Your task to perform on an android device: Search for vegetarian restaurants on Maps Image 0: 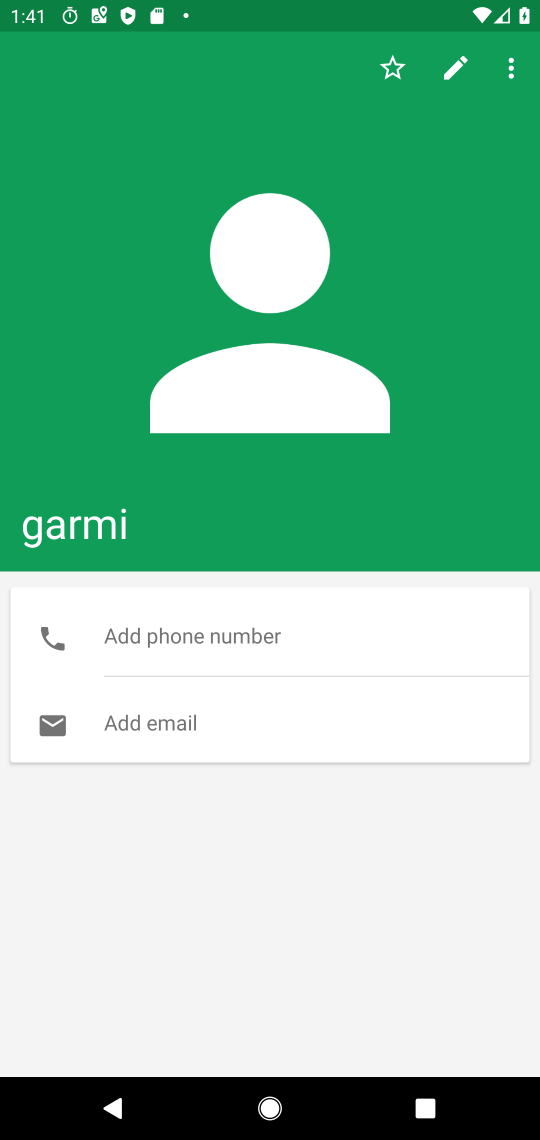
Step 0: press home button
Your task to perform on an android device: Search for vegetarian restaurants on Maps Image 1: 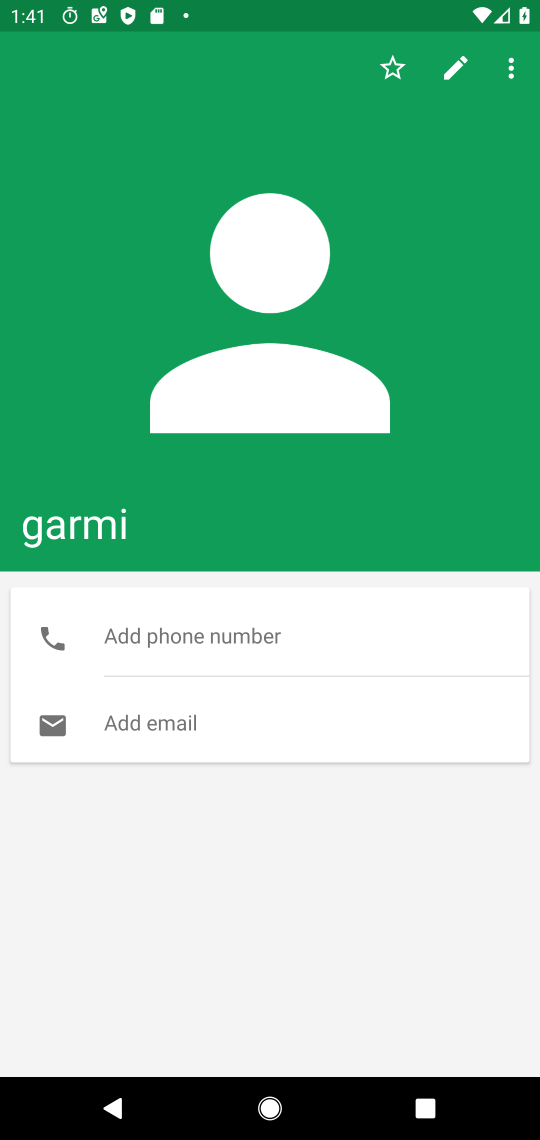
Step 1: press home button
Your task to perform on an android device: Search for vegetarian restaurants on Maps Image 2: 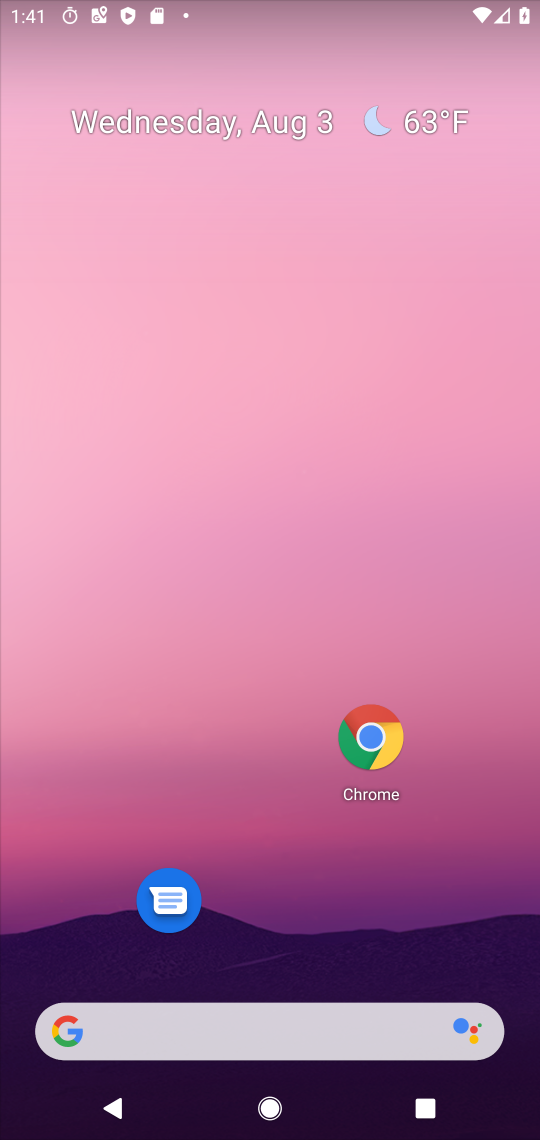
Step 2: press home button
Your task to perform on an android device: Search for vegetarian restaurants on Maps Image 3: 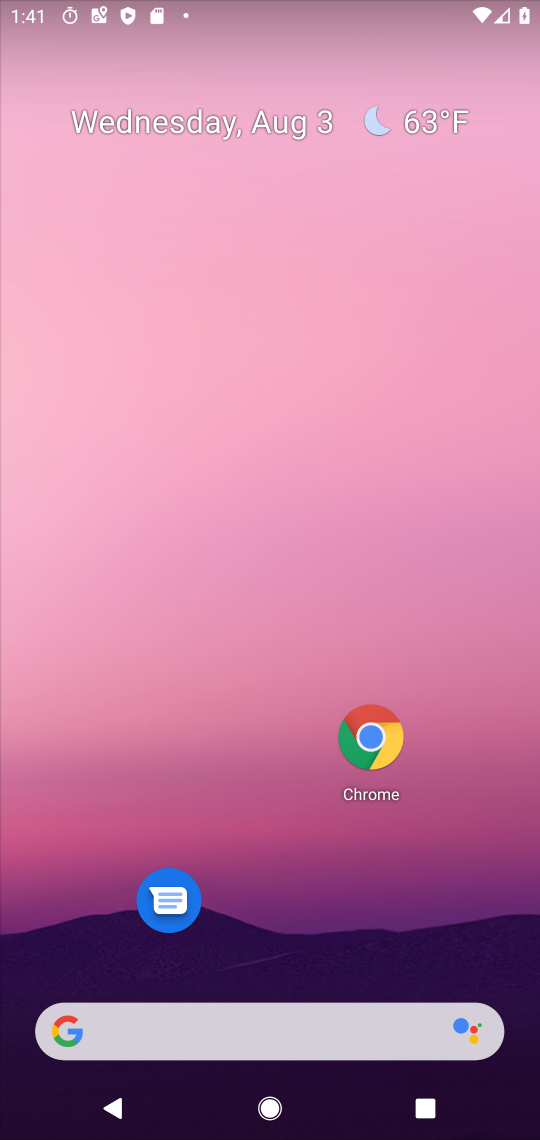
Step 3: drag from (272, 936) to (249, 123)
Your task to perform on an android device: Search for vegetarian restaurants on Maps Image 4: 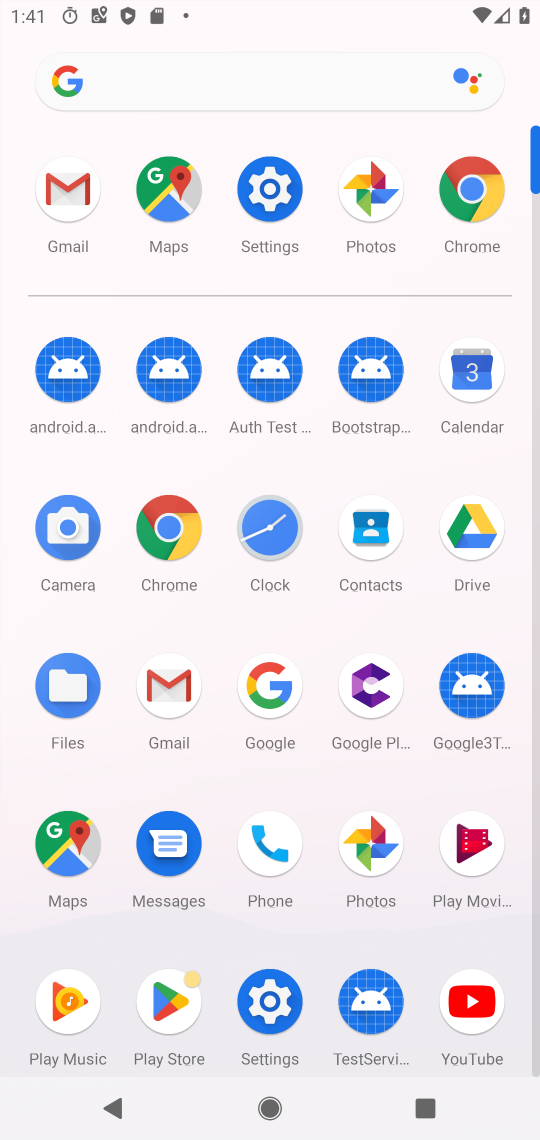
Step 4: click (75, 842)
Your task to perform on an android device: Search for vegetarian restaurants on Maps Image 5: 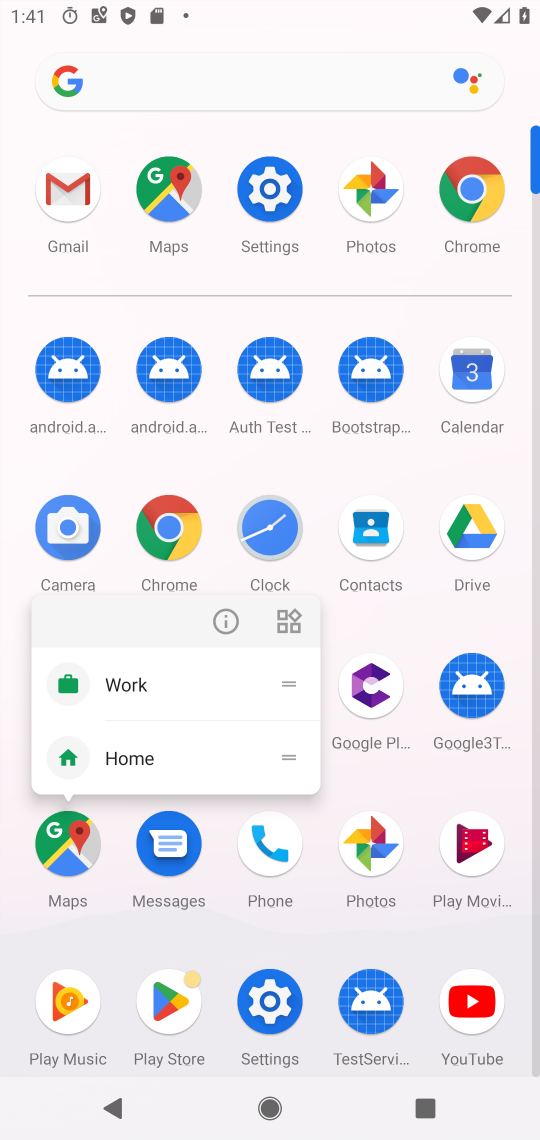
Step 5: click (68, 842)
Your task to perform on an android device: Search for vegetarian restaurants on Maps Image 6: 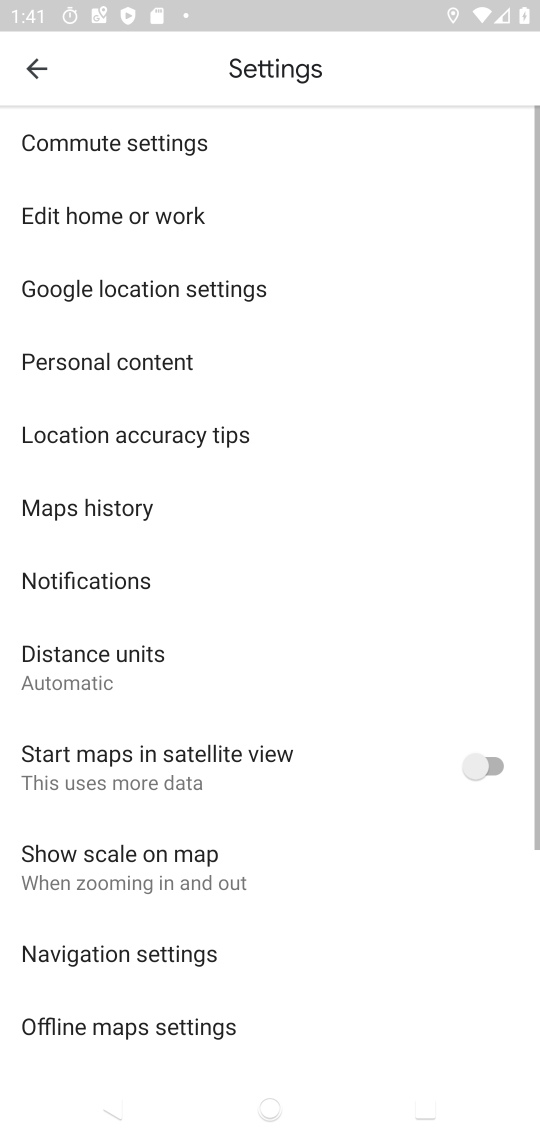
Step 6: click (37, 54)
Your task to perform on an android device: Search for vegetarian restaurants on Maps Image 7: 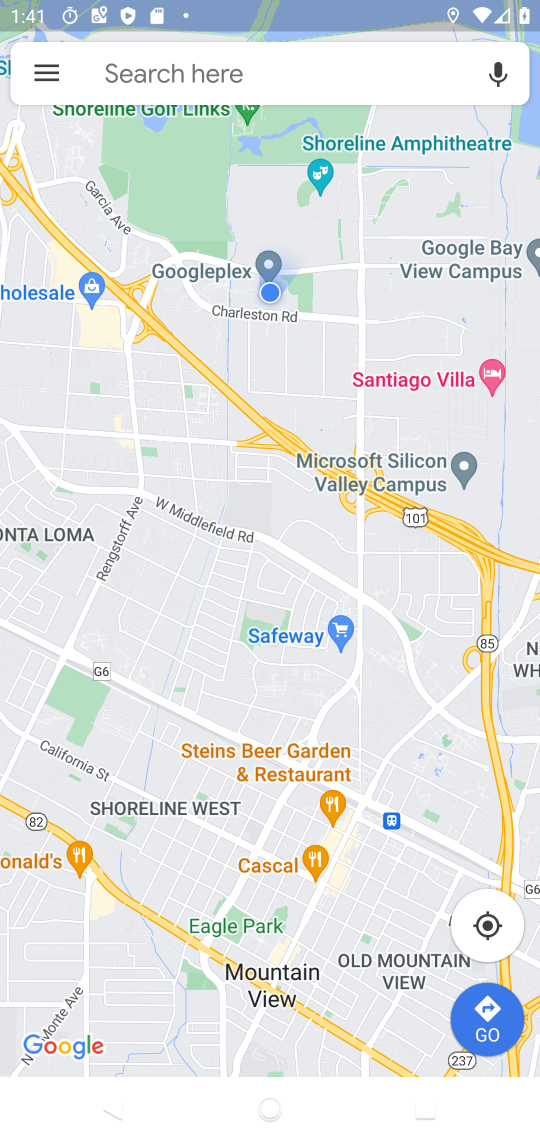
Step 7: click (280, 68)
Your task to perform on an android device: Search for vegetarian restaurants on Maps Image 8: 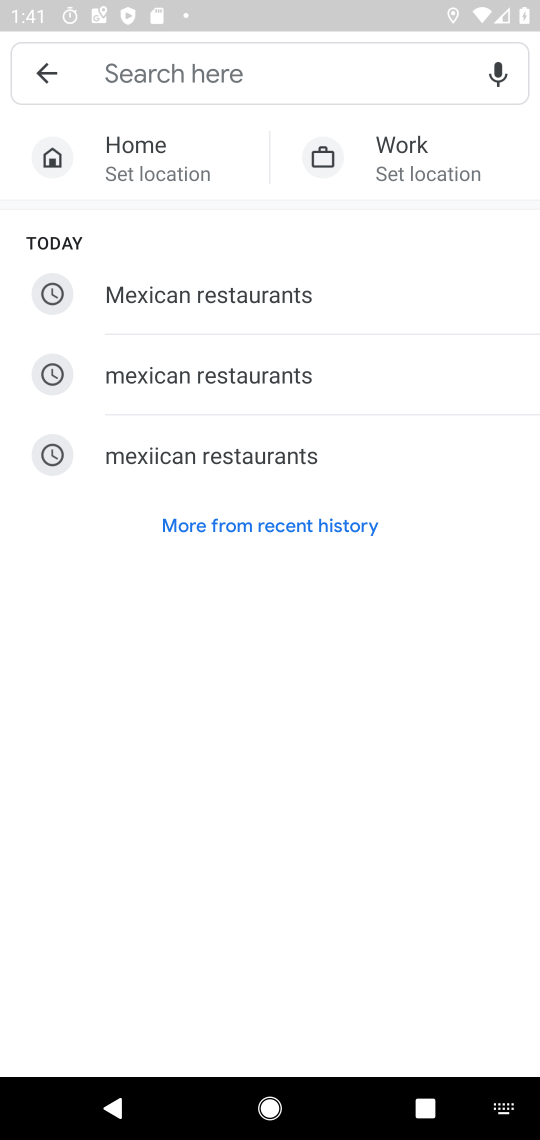
Step 8: type "Vegetarian restaurants"
Your task to perform on an android device: Search for vegetarian restaurants on Maps Image 9: 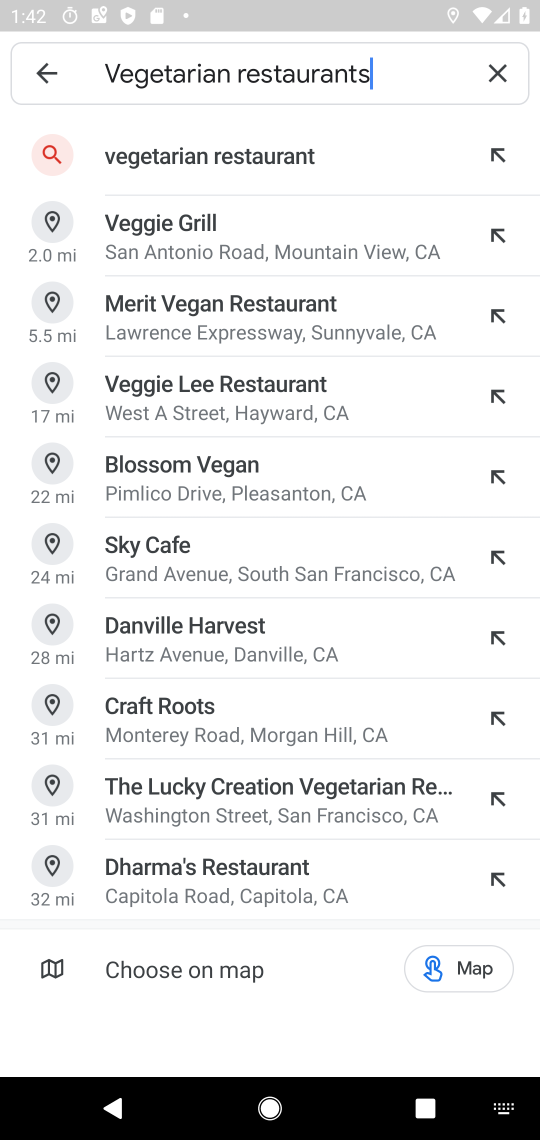
Step 9: press enter
Your task to perform on an android device: Search for vegetarian restaurants on Maps Image 10: 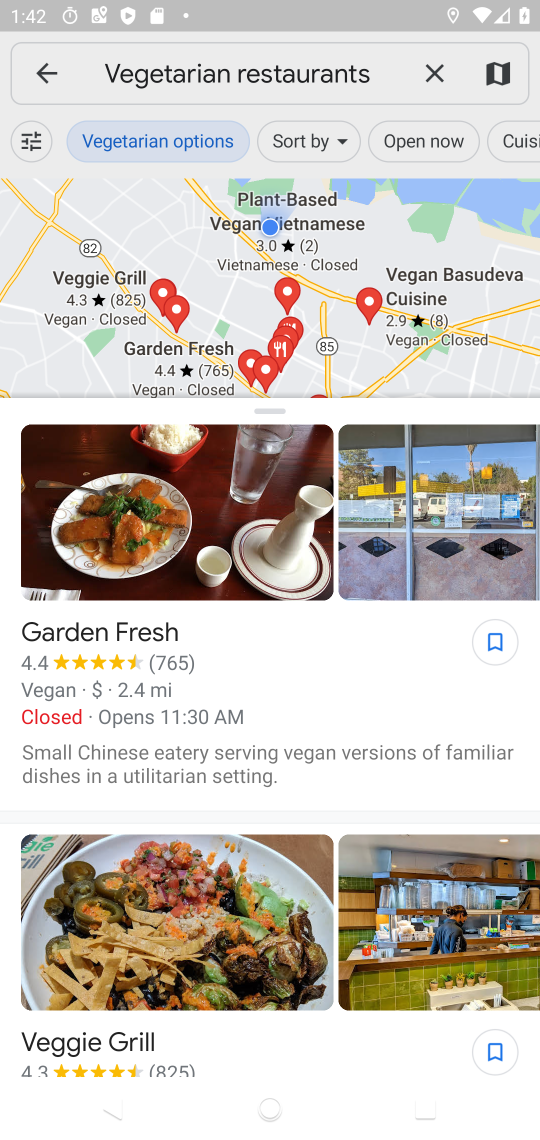
Step 10: task complete